Your task to perform on an android device: What's on my calendar tomorrow? Image 0: 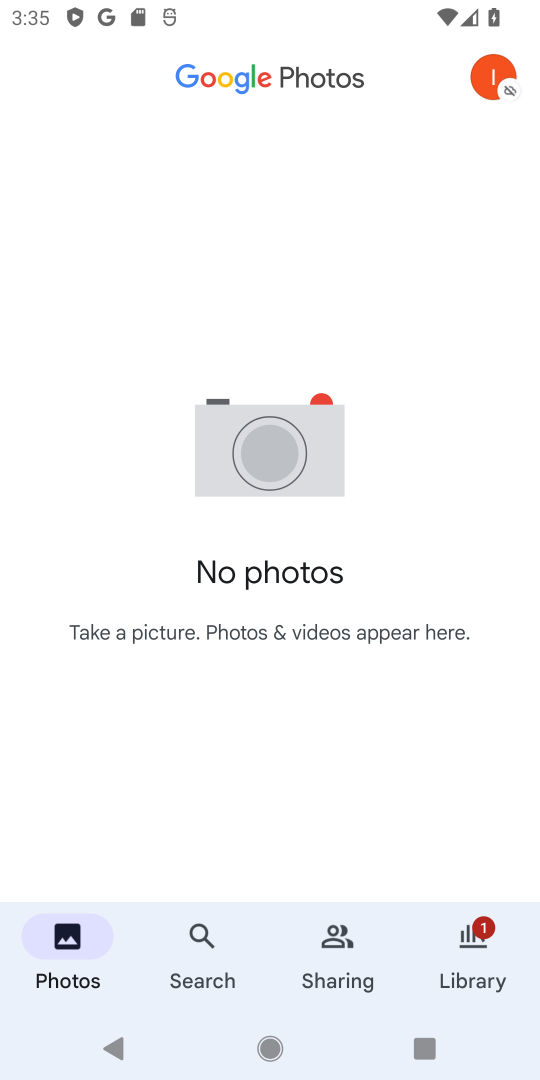
Step 0: press home button
Your task to perform on an android device: What's on my calendar tomorrow? Image 1: 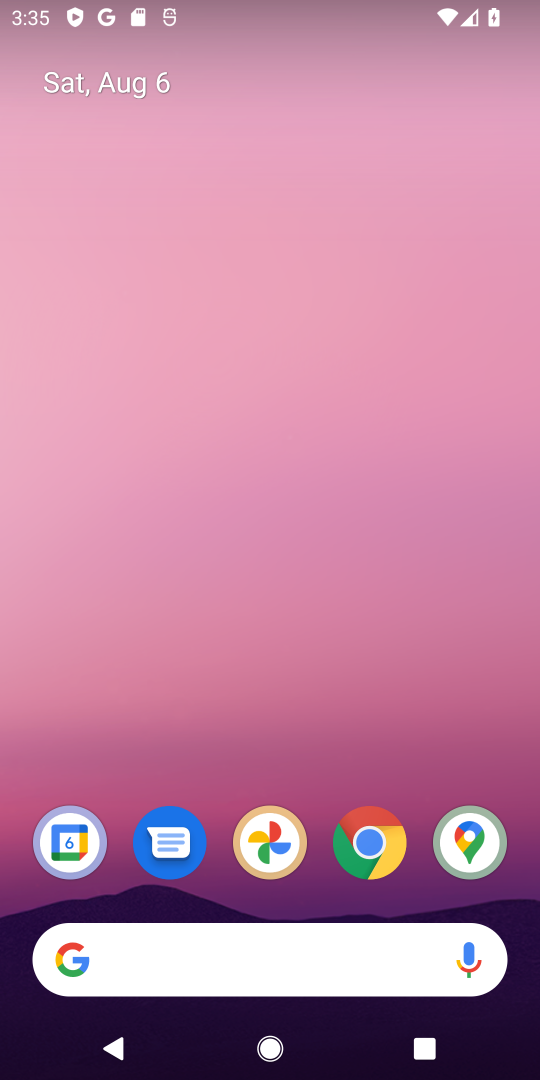
Step 1: click (64, 844)
Your task to perform on an android device: What's on my calendar tomorrow? Image 2: 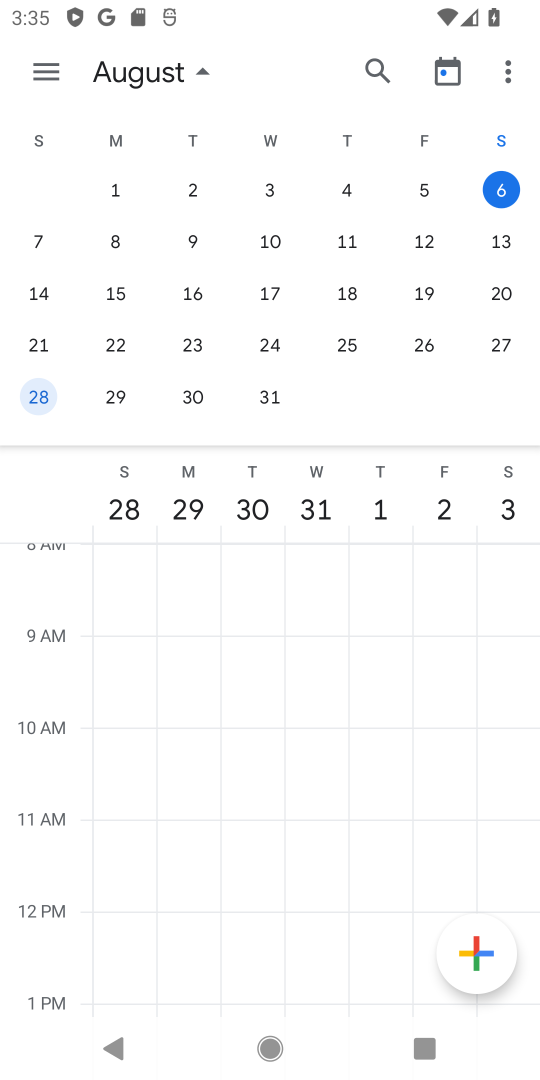
Step 2: click (196, 74)
Your task to perform on an android device: What's on my calendar tomorrow? Image 3: 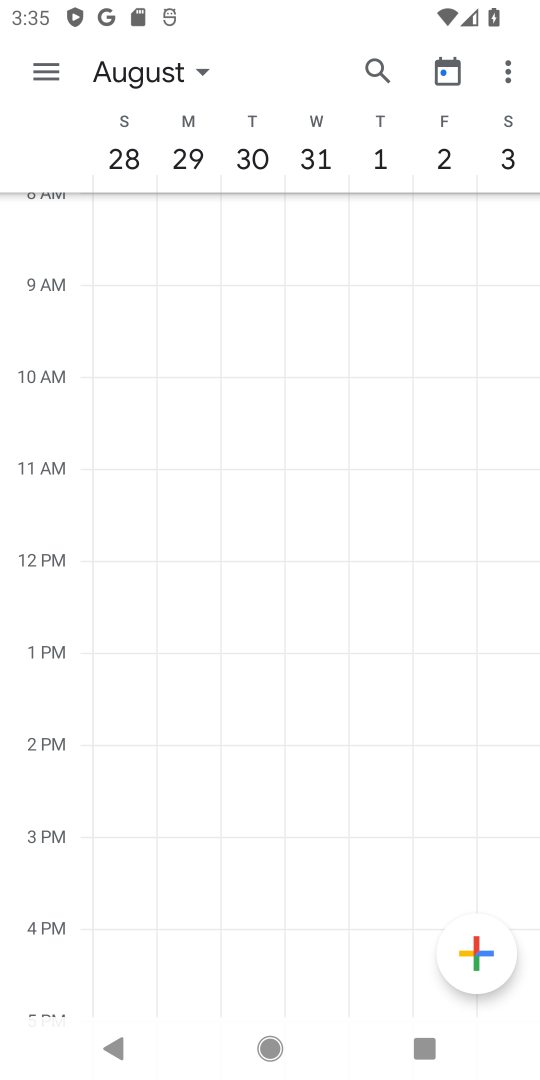
Step 3: click (202, 69)
Your task to perform on an android device: What's on my calendar tomorrow? Image 4: 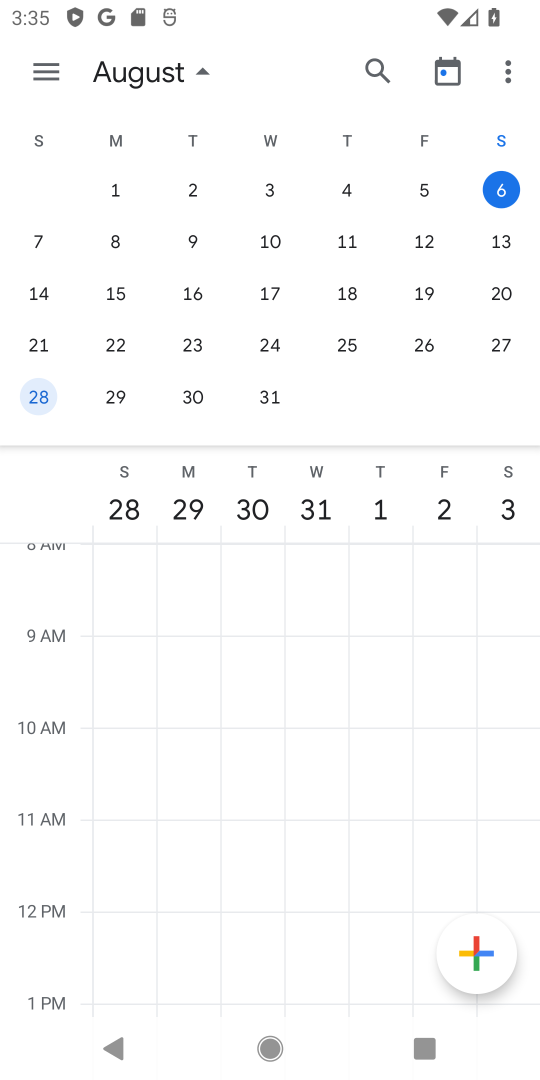
Step 4: click (24, 240)
Your task to perform on an android device: What's on my calendar tomorrow? Image 5: 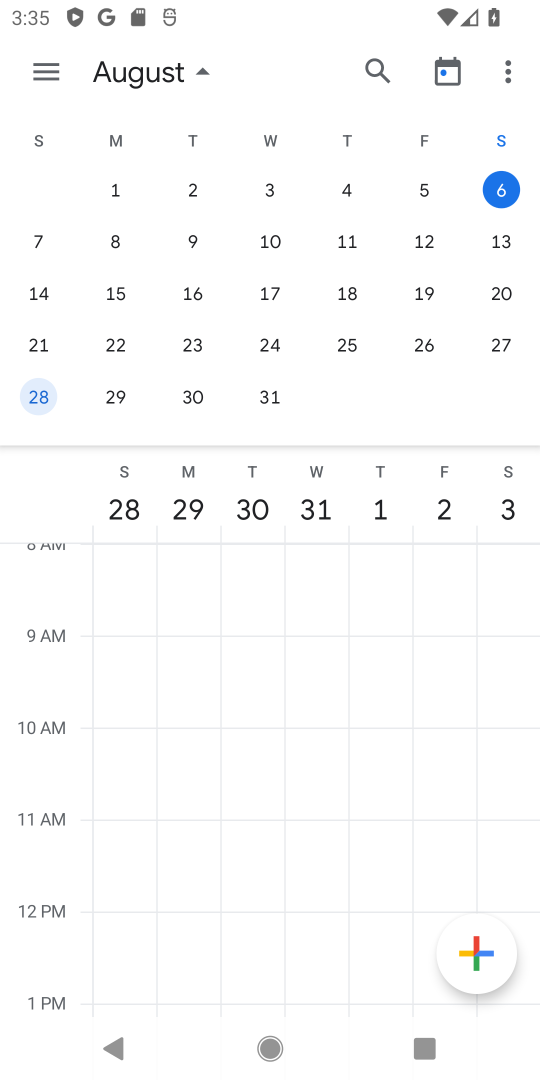
Step 5: click (30, 236)
Your task to perform on an android device: What's on my calendar tomorrow? Image 6: 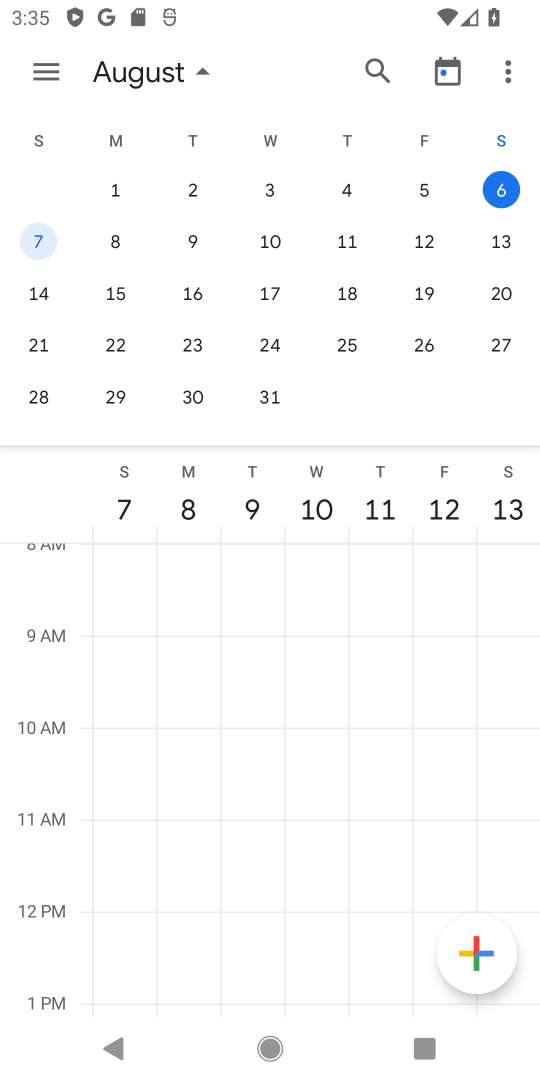
Step 6: click (38, 76)
Your task to perform on an android device: What's on my calendar tomorrow? Image 7: 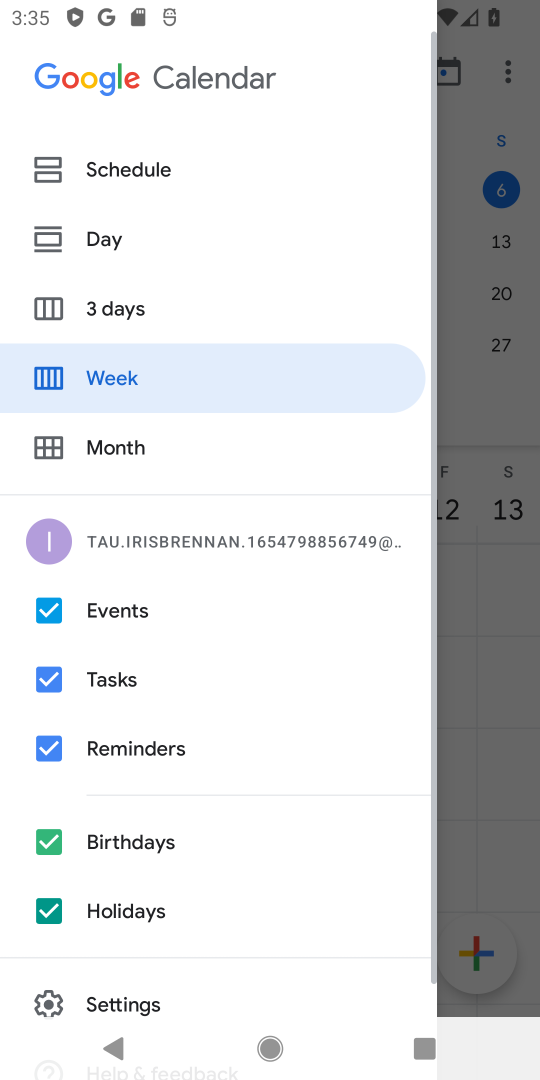
Step 7: click (96, 229)
Your task to perform on an android device: What's on my calendar tomorrow? Image 8: 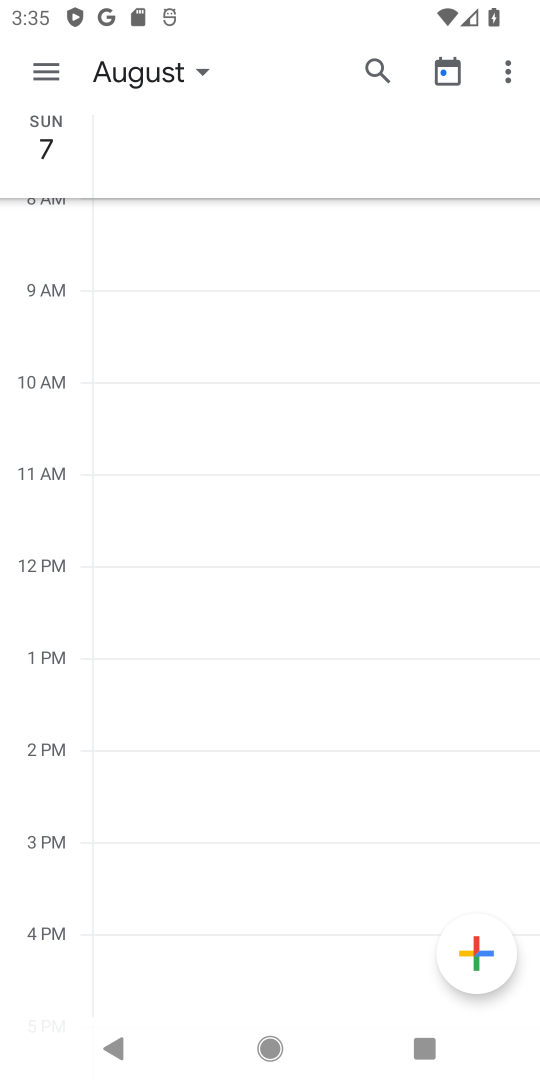
Step 8: click (50, 70)
Your task to perform on an android device: What's on my calendar tomorrow? Image 9: 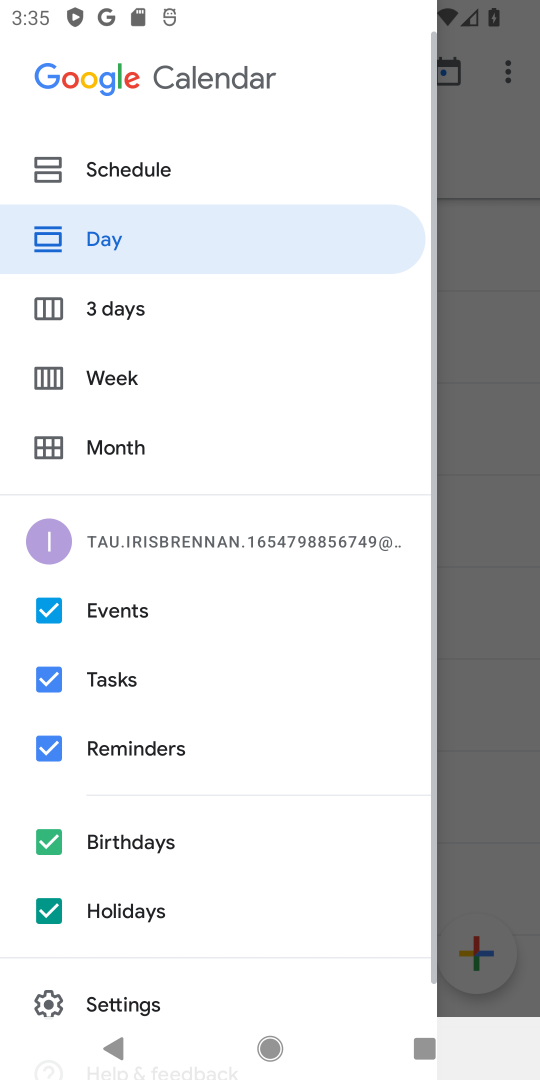
Step 9: click (91, 175)
Your task to perform on an android device: What's on my calendar tomorrow? Image 10: 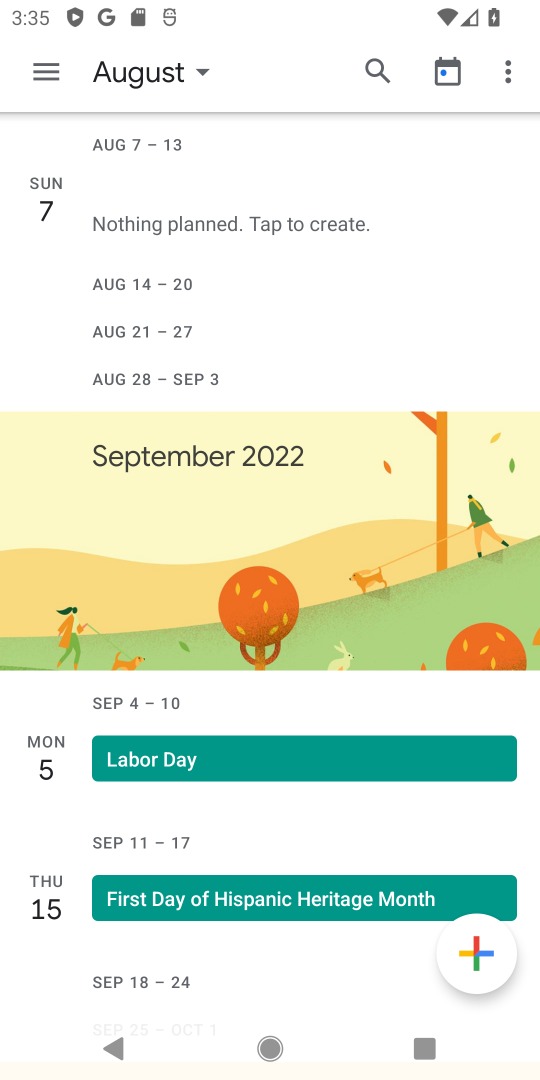
Step 10: task complete